Your task to perform on an android device: turn off location history Image 0: 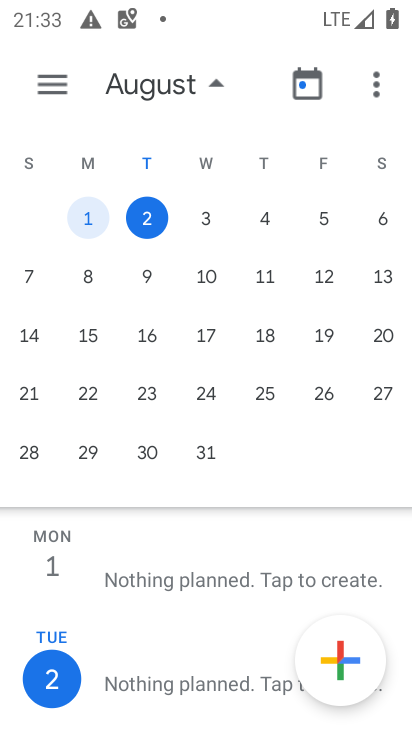
Step 0: press home button
Your task to perform on an android device: turn off location history Image 1: 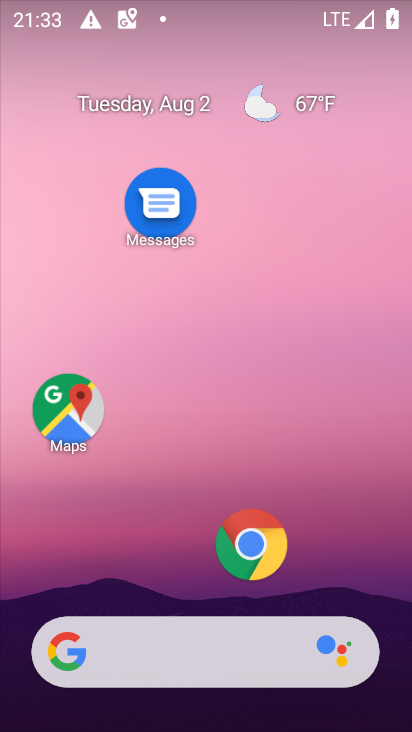
Step 1: drag from (180, 596) to (172, 78)
Your task to perform on an android device: turn off location history Image 2: 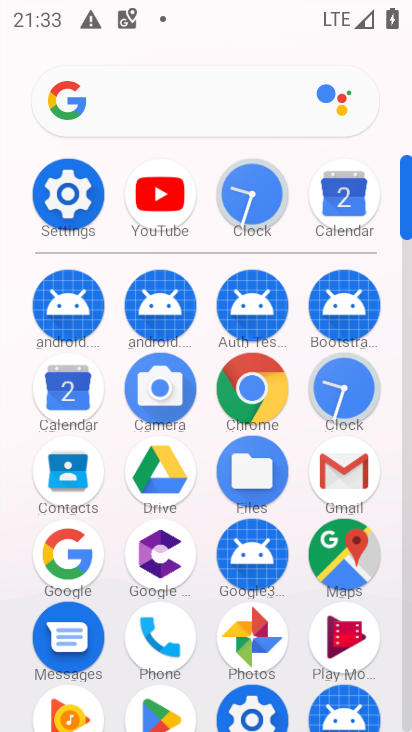
Step 2: click (76, 184)
Your task to perform on an android device: turn off location history Image 3: 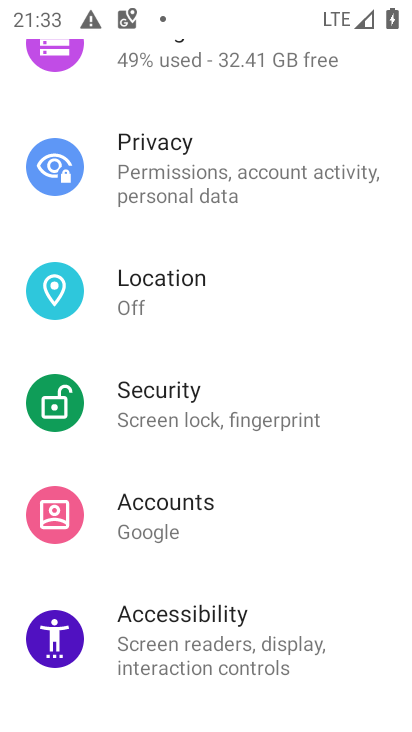
Step 3: click (163, 295)
Your task to perform on an android device: turn off location history Image 4: 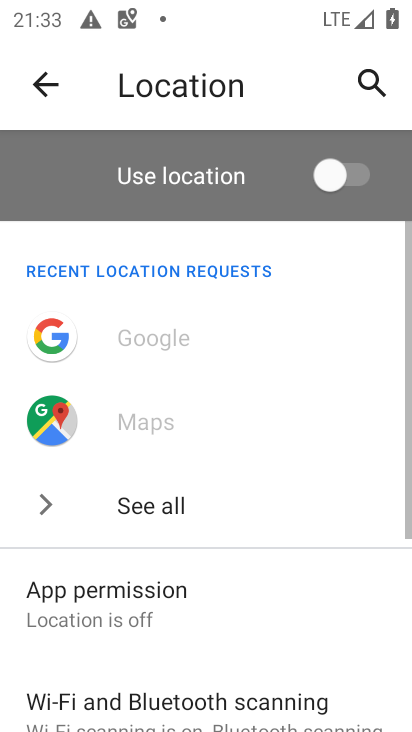
Step 4: drag from (226, 617) to (191, 165)
Your task to perform on an android device: turn off location history Image 5: 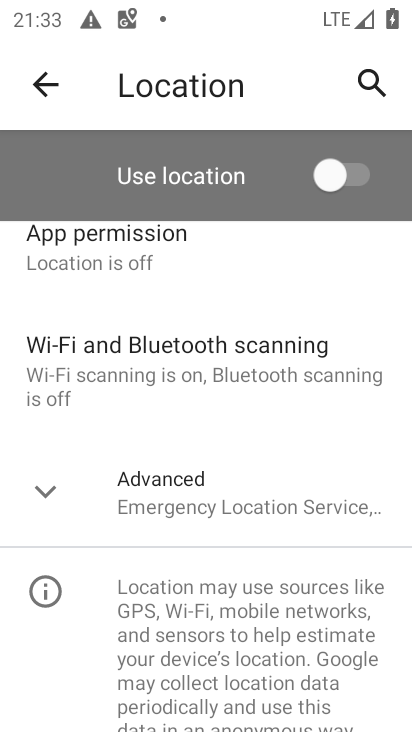
Step 5: click (184, 501)
Your task to perform on an android device: turn off location history Image 6: 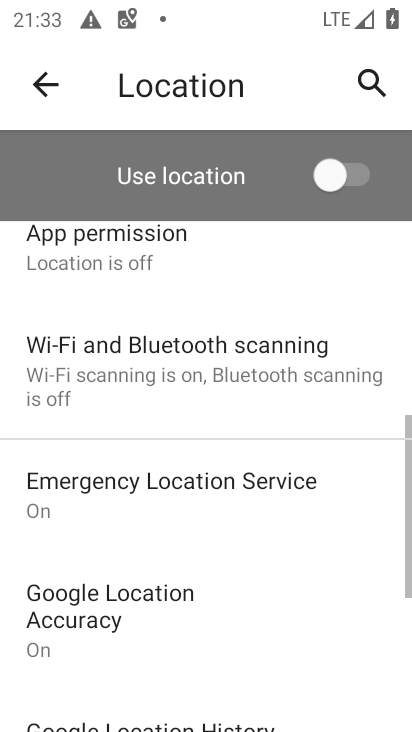
Step 6: drag from (216, 629) to (252, 314)
Your task to perform on an android device: turn off location history Image 7: 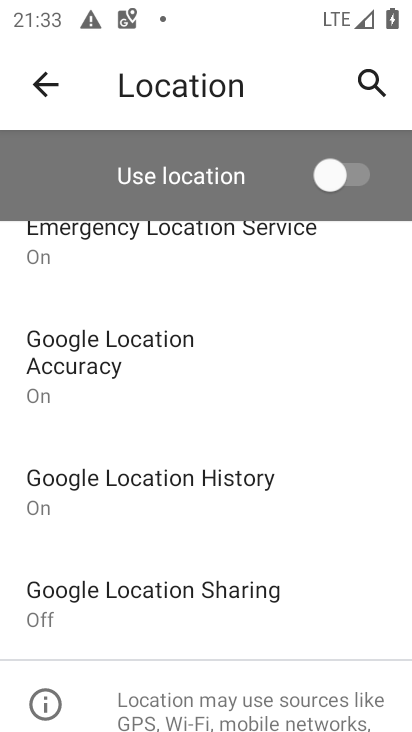
Step 7: click (240, 473)
Your task to perform on an android device: turn off location history Image 8: 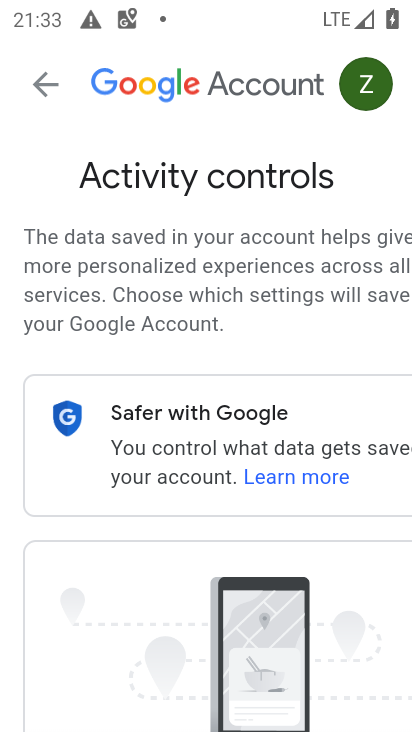
Step 8: drag from (258, 613) to (262, 303)
Your task to perform on an android device: turn off location history Image 9: 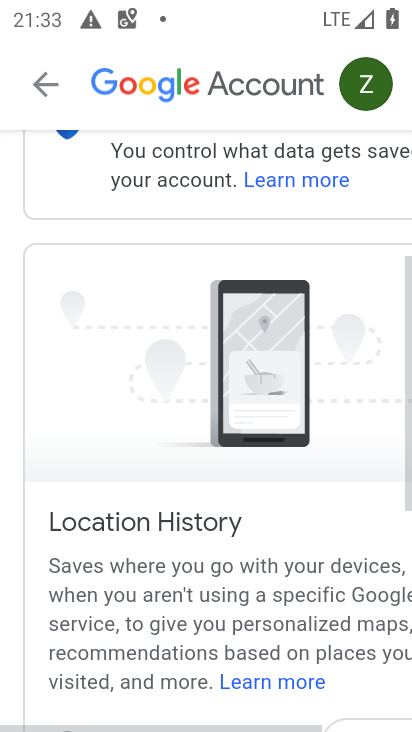
Step 9: drag from (257, 613) to (263, 290)
Your task to perform on an android device: turn off location history Image 10: 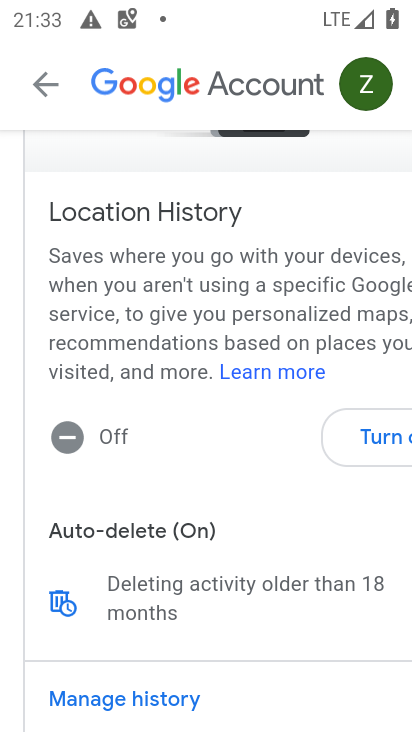
Step 10: click (344, 437)
Your task to perform on an android device: turn off location history Image 11: 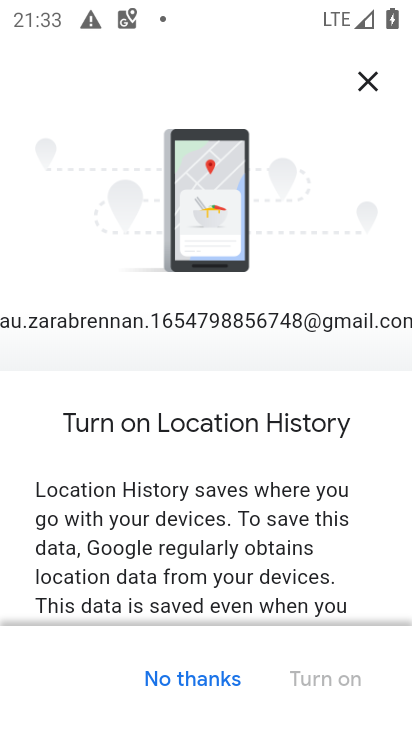
Step 11: click (355, 93)
Your task to perform on an android device: turn off location history Image 12: 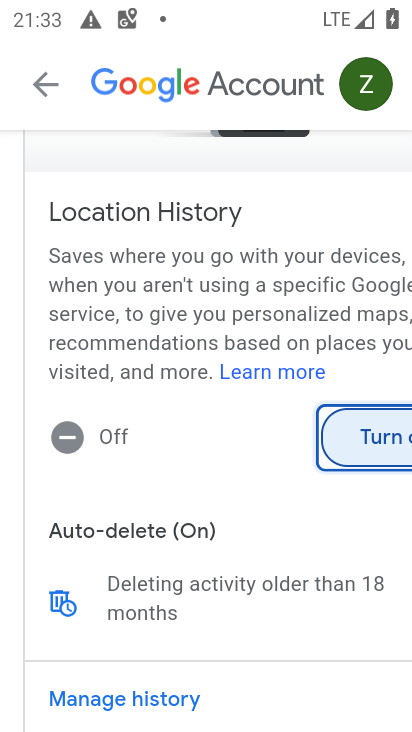
Step 12: task complete